Your task to perform on an android device: Turn on the flashlight Image 0: 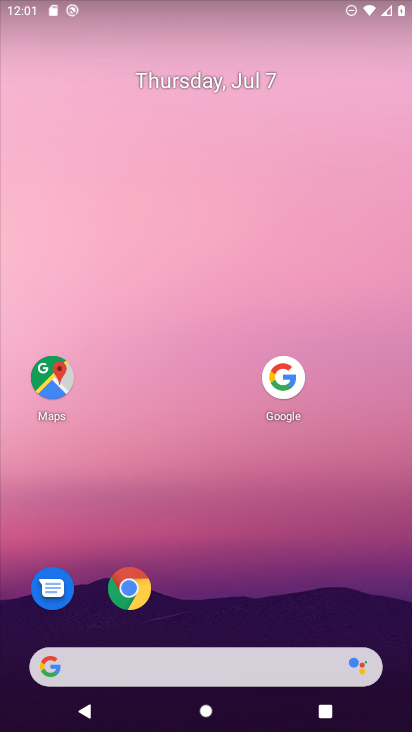
Step 0: drag from (161, 14) to (215, 444)
Your task to perform on an android device: Turn on the flashlight Image 1: 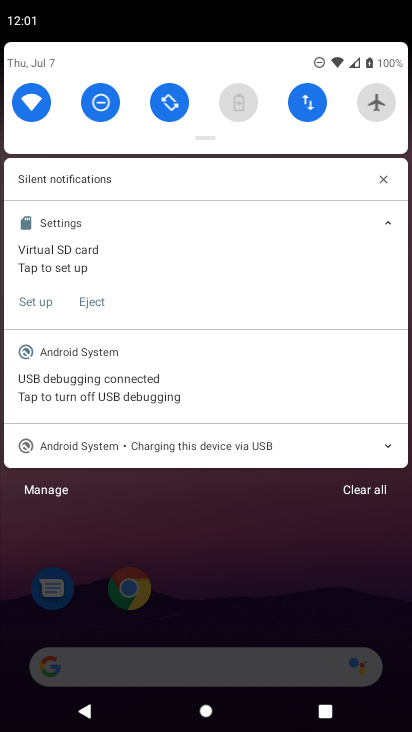
Step 1: task complete